Your task to perform on an android device: install app "Nova Launcher" Image 0: 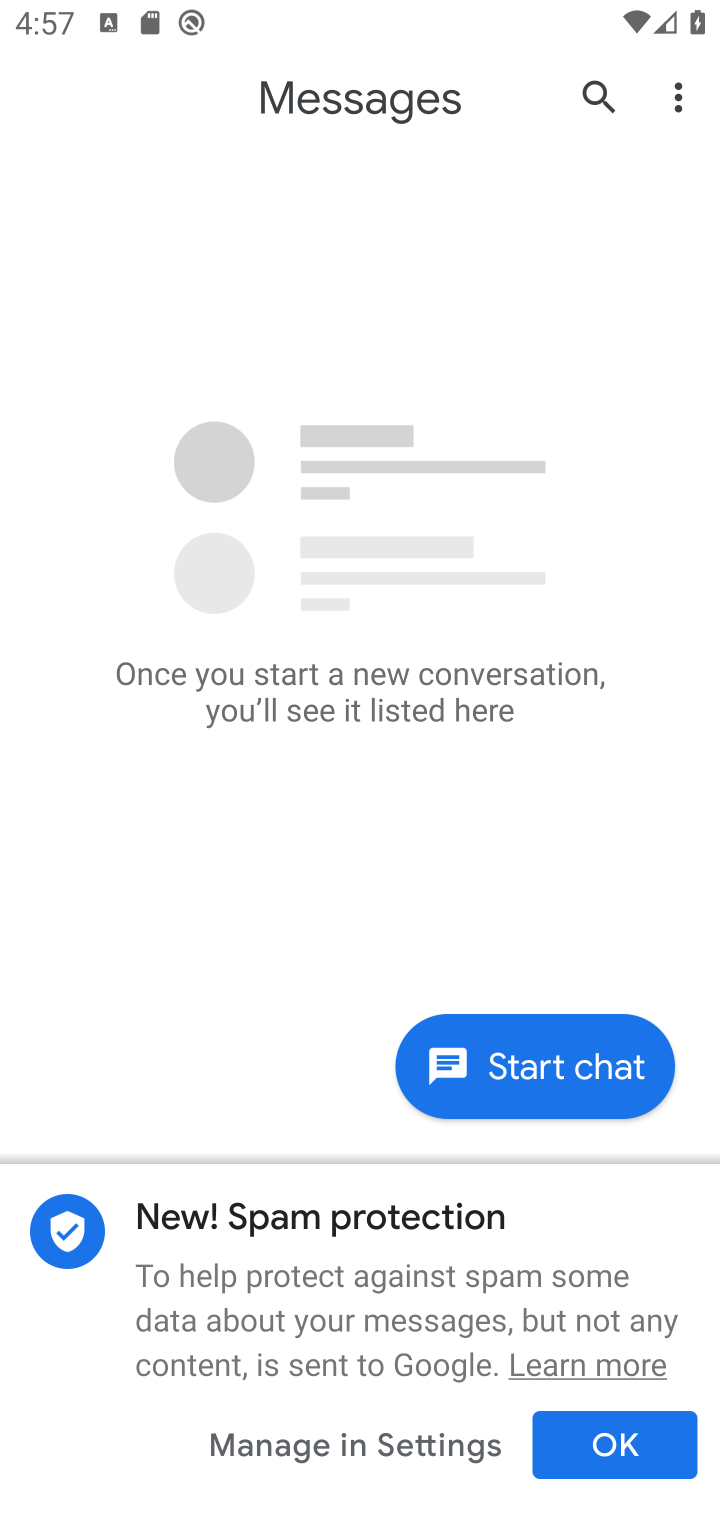
Step 0: press home button
Your task to perform on an android device: install app "Nova Launcher" Image 1: 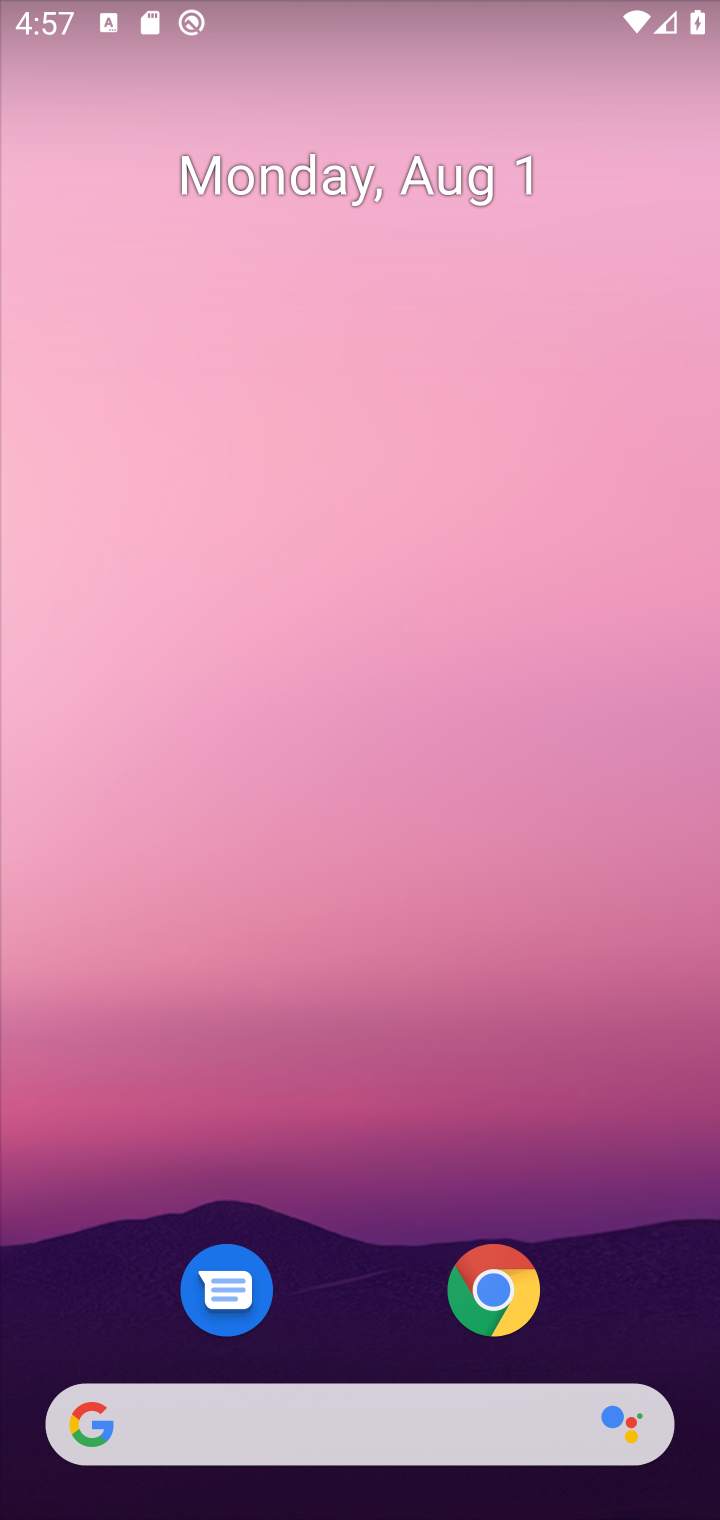
Step 1: drag from (257, 1428) to (24, 104)
Your task to perform on an android device: install app "Nova Launcher" Image 2: 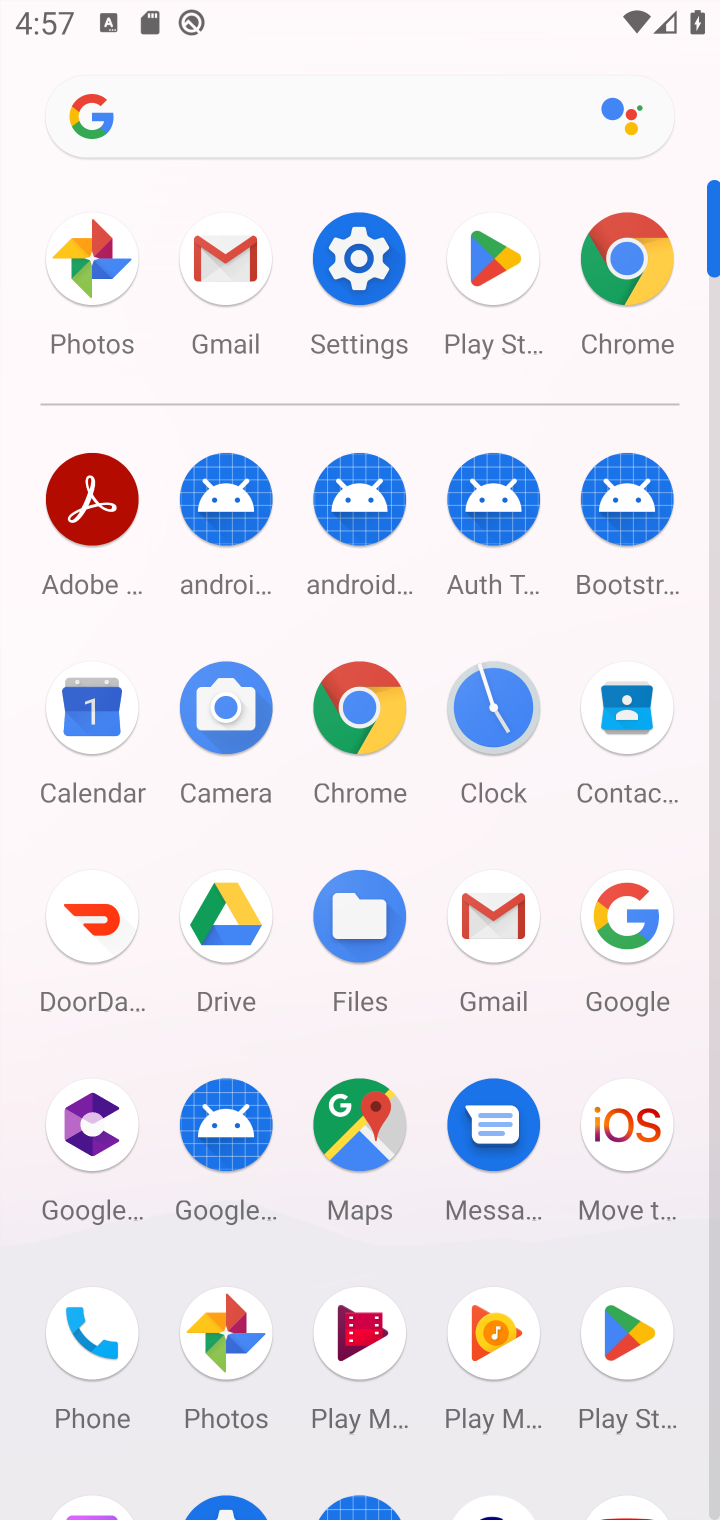
Step 2: click (628, 1359)
Your task to perform on an android device: install app "Nova Launcher" Image 3: 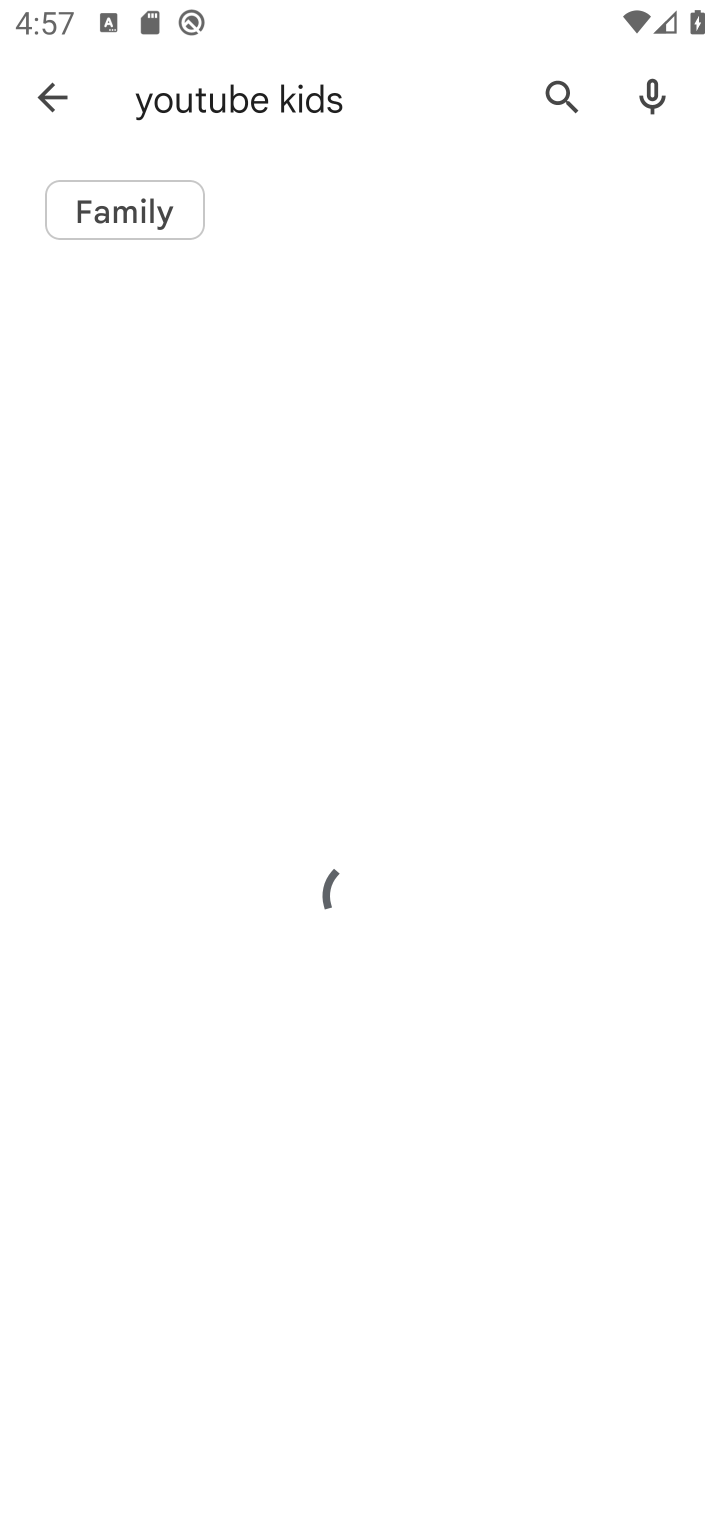
Step 3: click (578, 84)
Your task to perform on an android device: install app "Nova Launcher" Image 4: 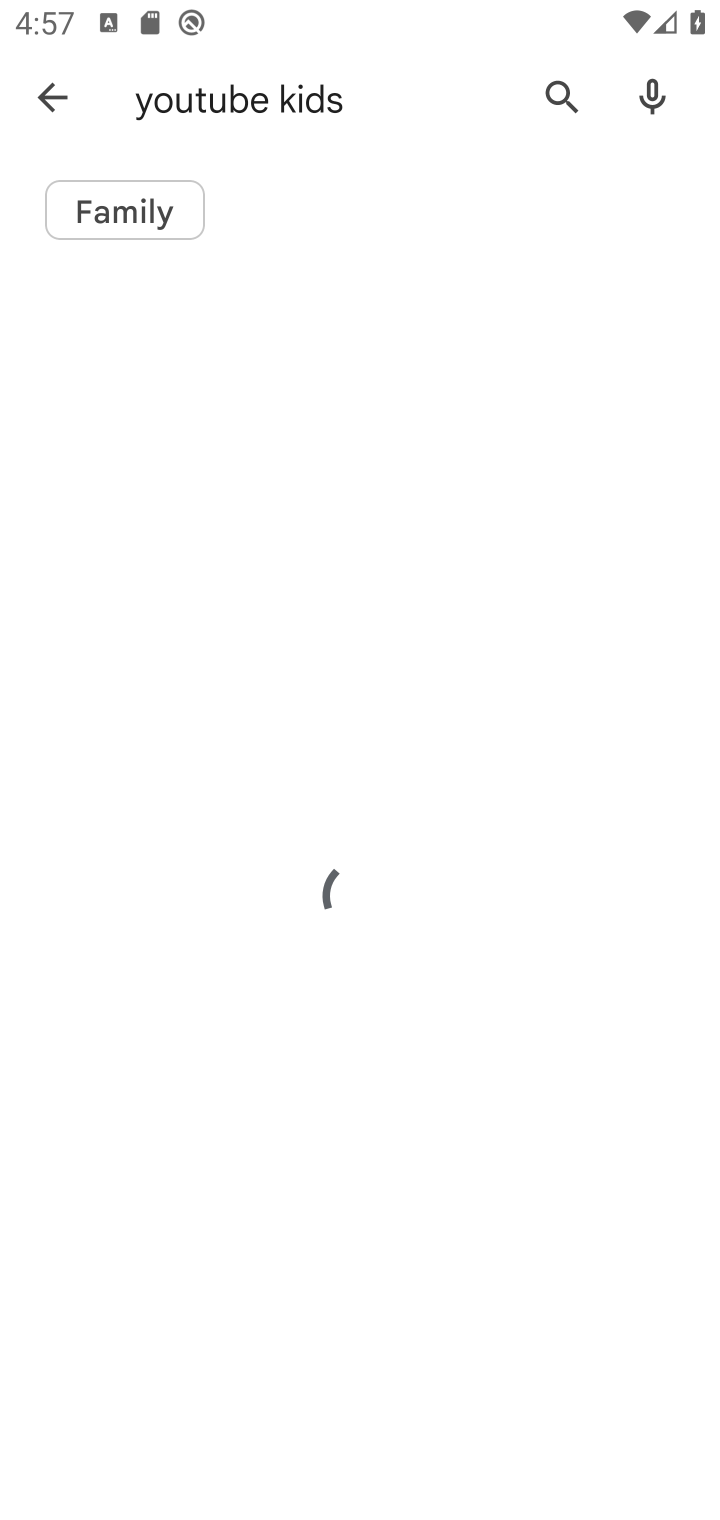
Step 4: click (578, 84)
Your task to perform on an android device: install app "Nova Launcher" Image 5: 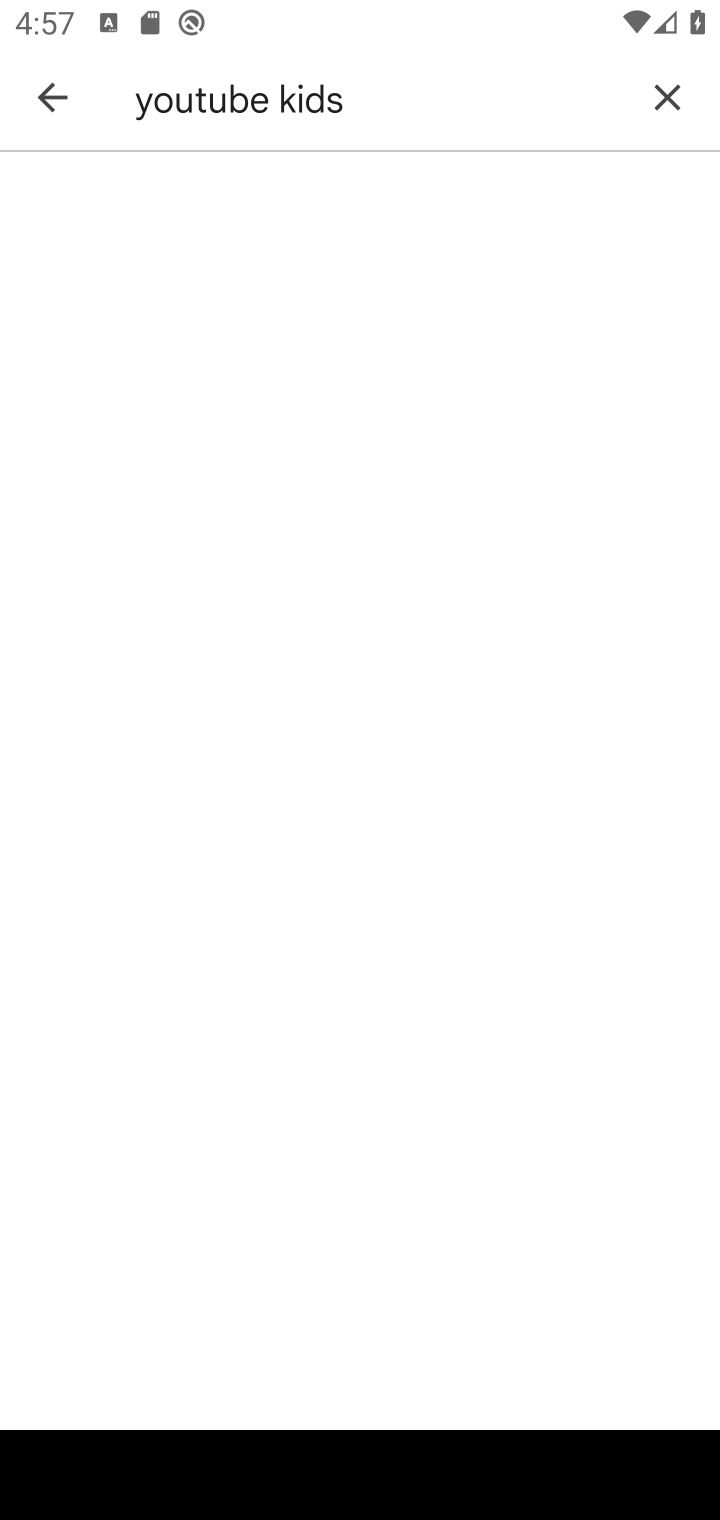
Step 5: click (677, 87)
Your task to perform on an android device: install app "Nova Launcher" Image 6: 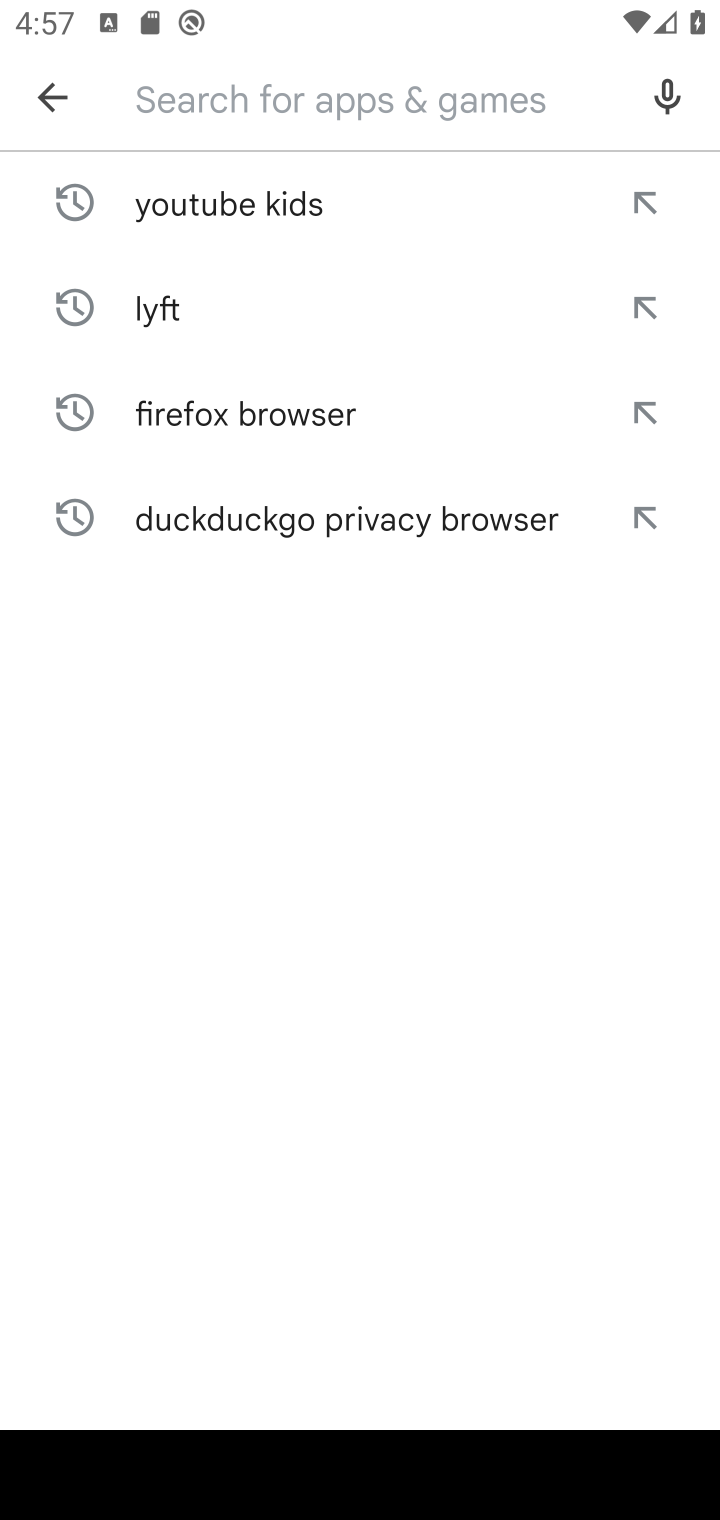
Step 6: type "nova launcher"
Your task to perform on an android device: install app "Nova Launcher" Image 7: 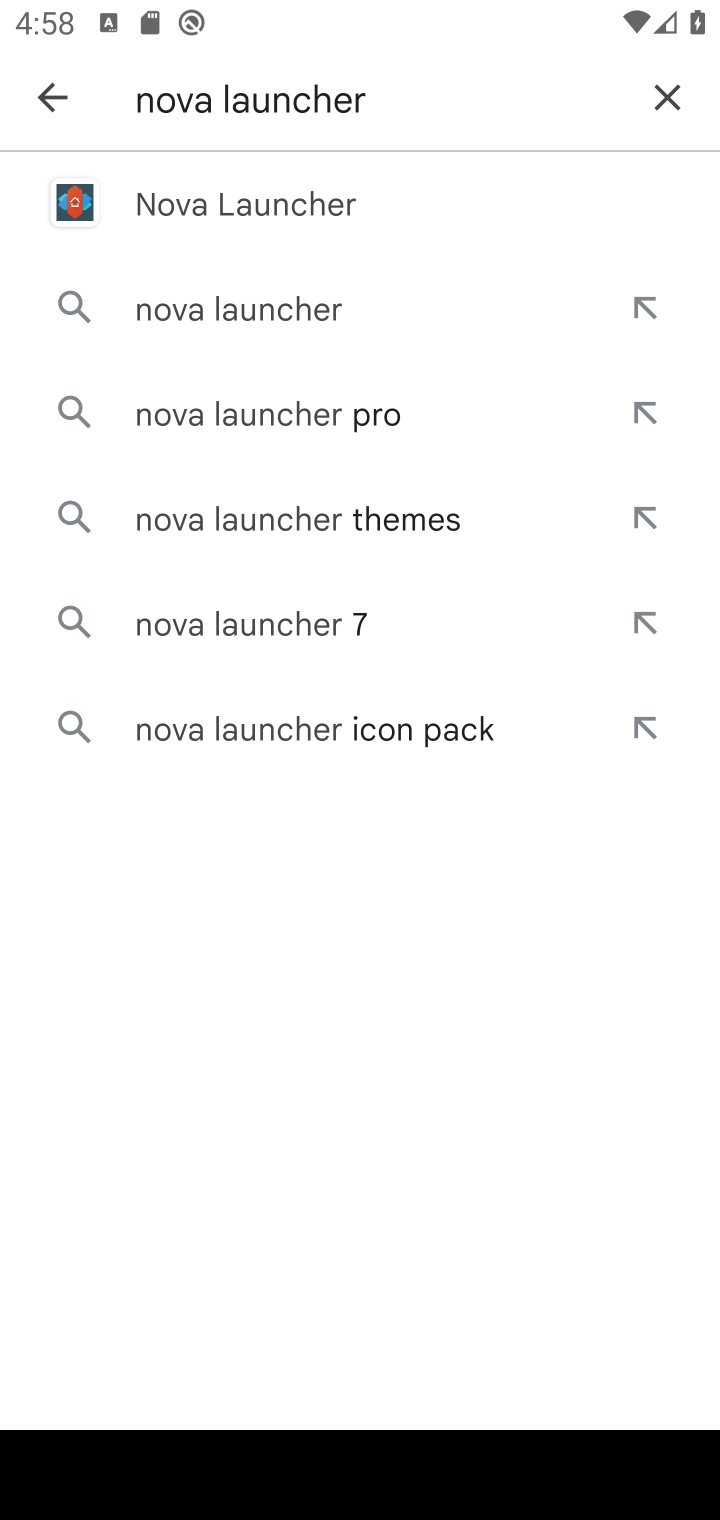
Step 7: click (347, 205)
Your task to perform on an android device: install app "Nova Launcher" Image 8: 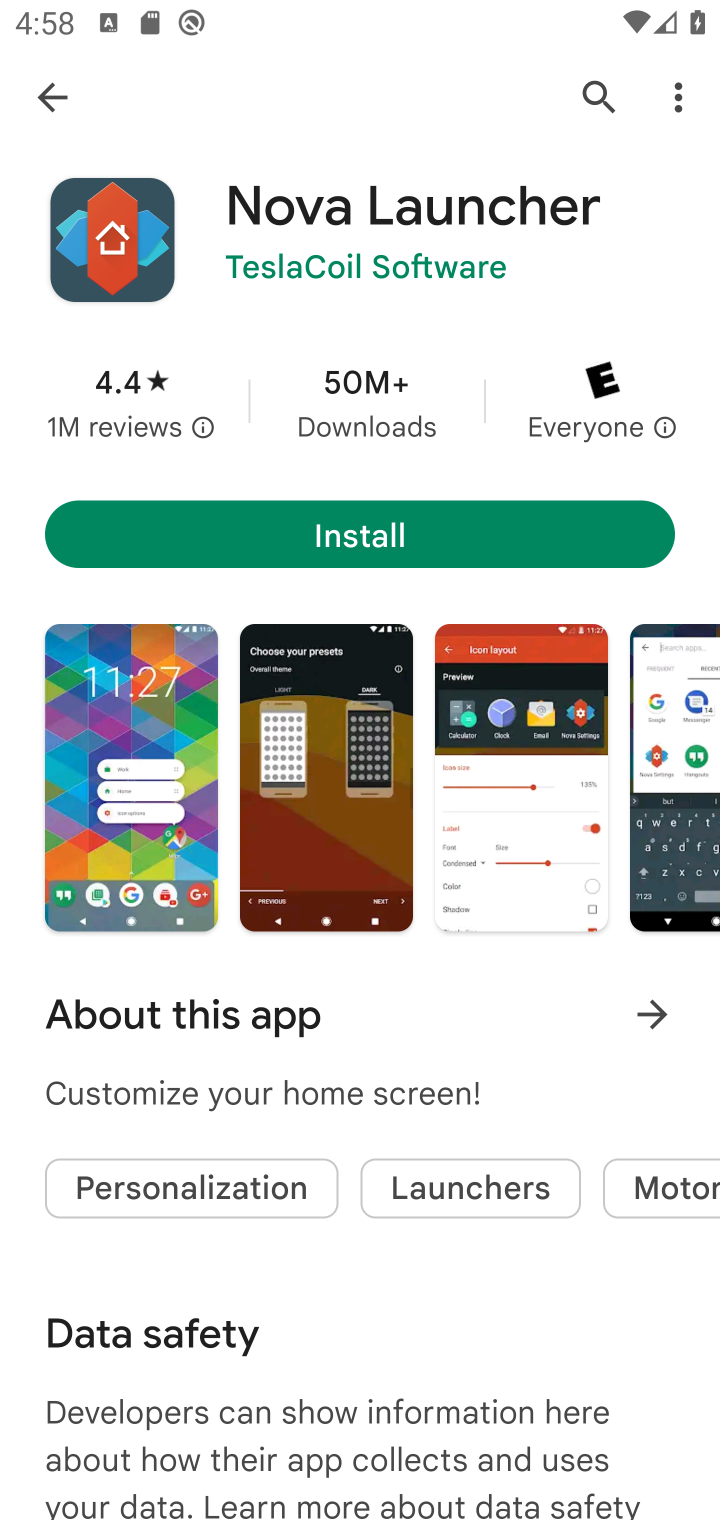
Step 8: click (464, 543)
Your task to perform on an android device: install app "Nova Launcher" Image 9: 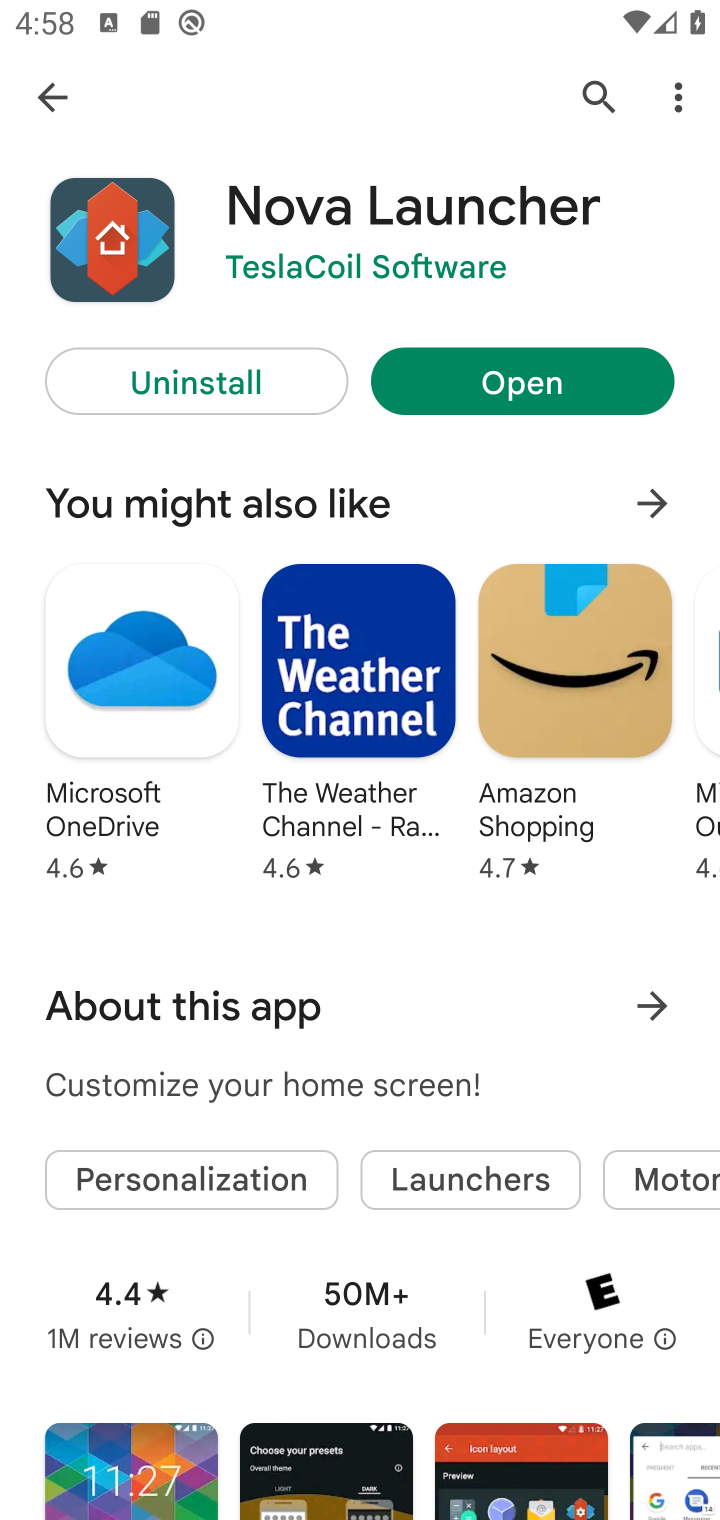
Step 9: task complete